Your task to perform on an android device: check battery use Image 0: 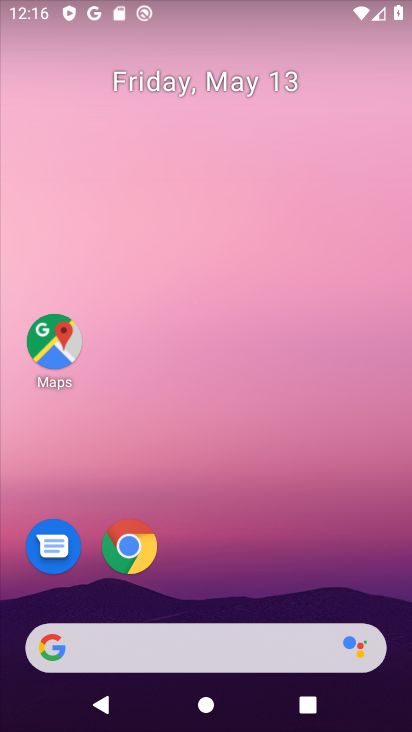
Step 0: drag from (364, 476) to (192, 49)
Your task to perform on an android device: check battery use Image 1: 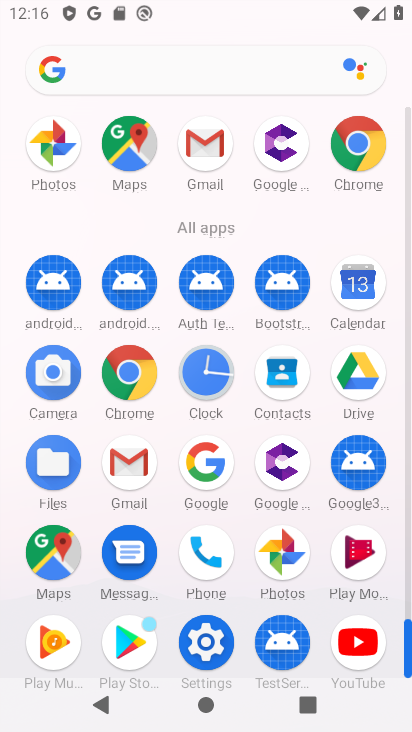
Step 1: click (206, 638)
Your task to perform on an android device: check battery use Image 2: 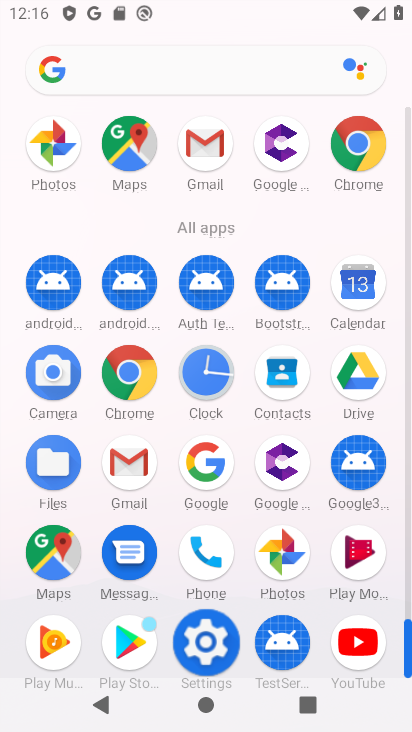
Step 2: click (204, 648)
Your task to perform on an android device: check battery use Image 3: 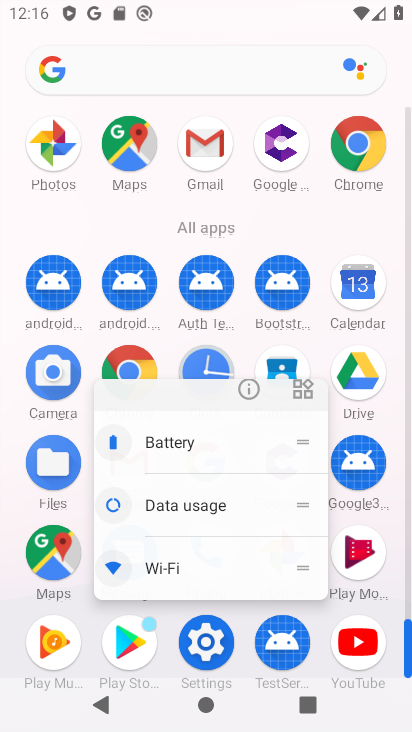
Step 3: click (200, 634)
Your task to perform on an android device: check battery use Image 4: 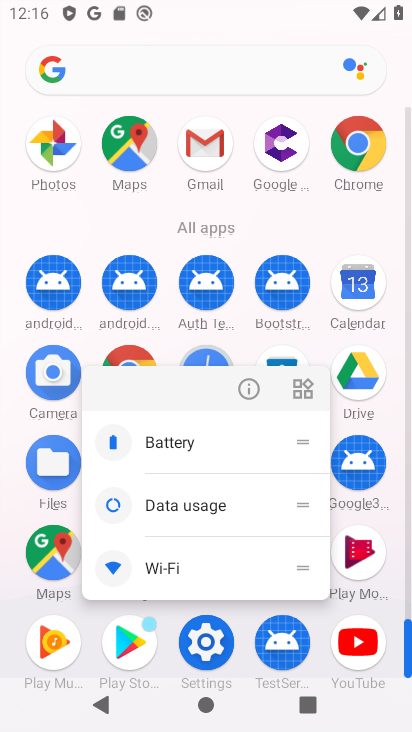
Step 4: click (203, 621)
Your task to perform on an android device: check battery use Image 5: 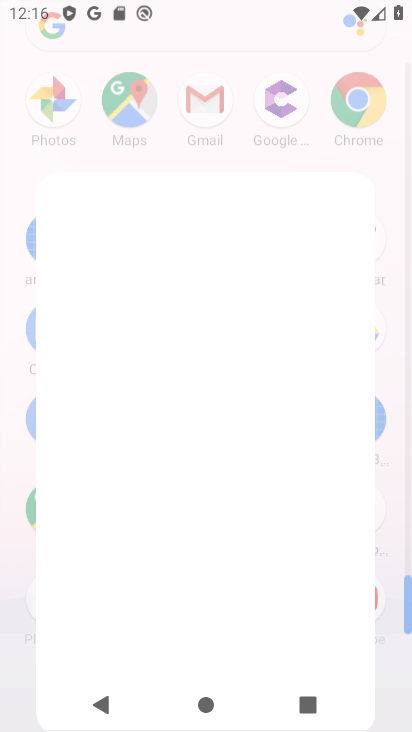
Step 5: click (204, 630)
Your task to perform on an android device: check battery use Image 6: 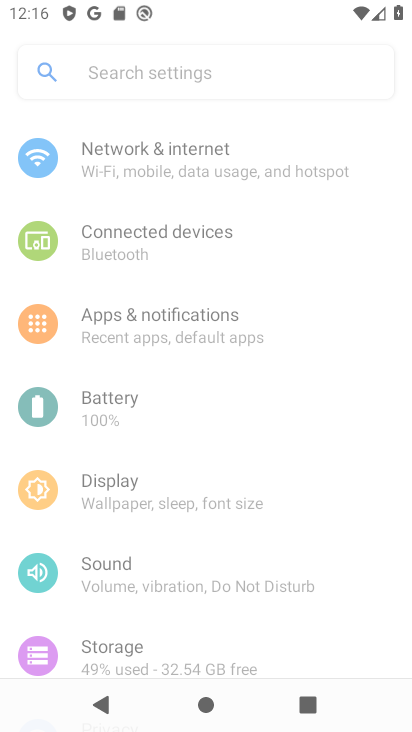
Step 6: click (204, 637)
Your task to perform on an android device: check battery use Image 7: 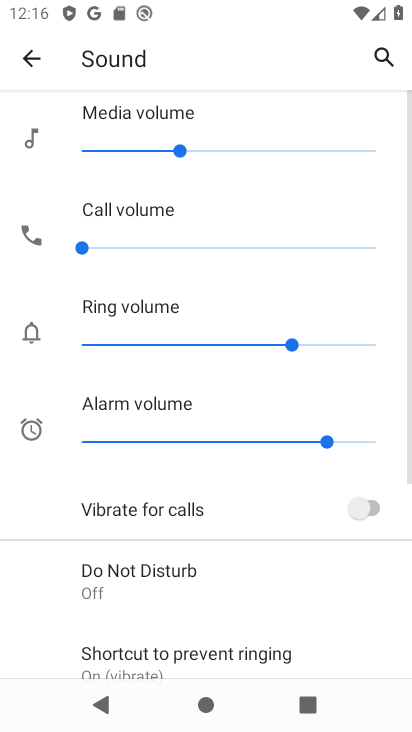
Step 7: click (42, 60)
Your task to perform on an android device: check battery use Image 8: 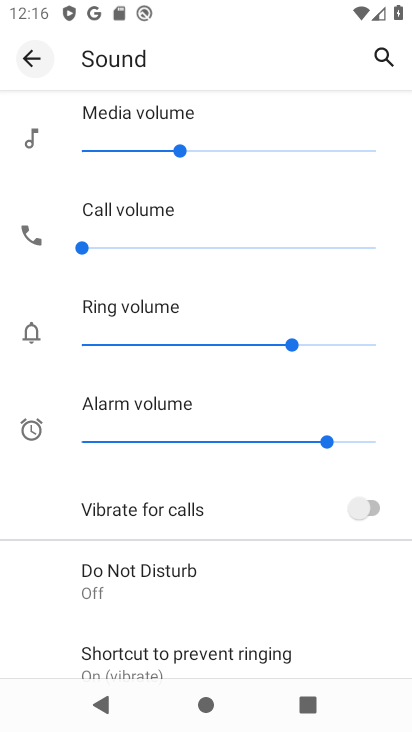
Step 8: click (36, 57)
Your task to perform on an android device: check battery use Image 9: 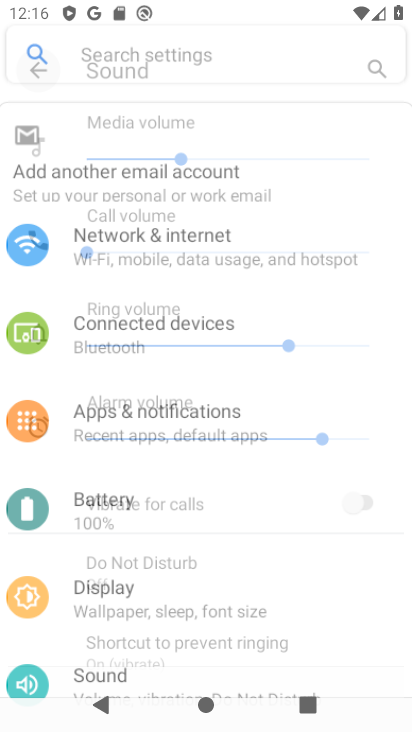
Step 9: click (35, 60)
Your task to perform on an android device: check battery use Image 10: 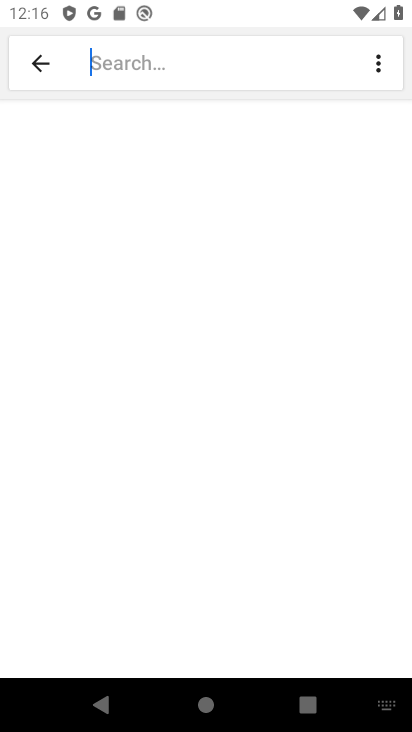
Step 10: click (43, 52)
Your task to perform on an android device: check battery use Image 11: 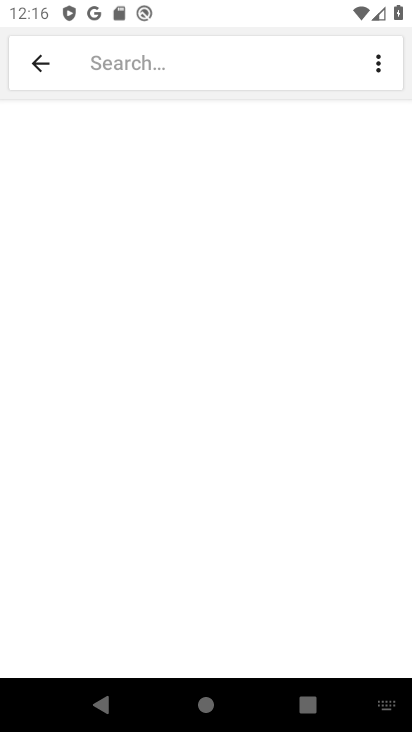
Step 11: click (43, 56)
Your task to perform on an android device: check battery use Image 12: 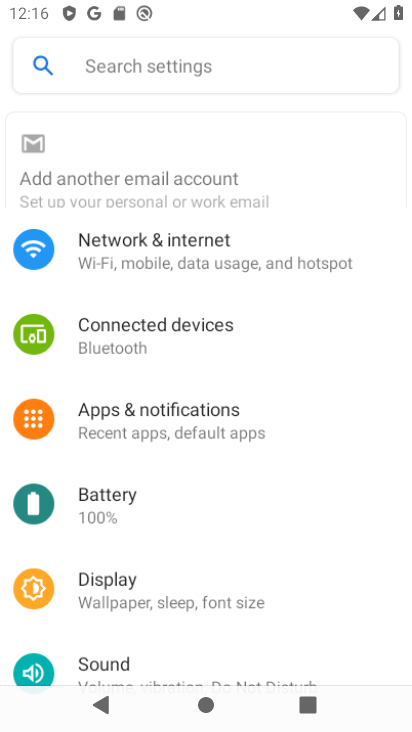
Step 12: click (43, 66)
Your task to perform on an android device: check battery use Image 13: 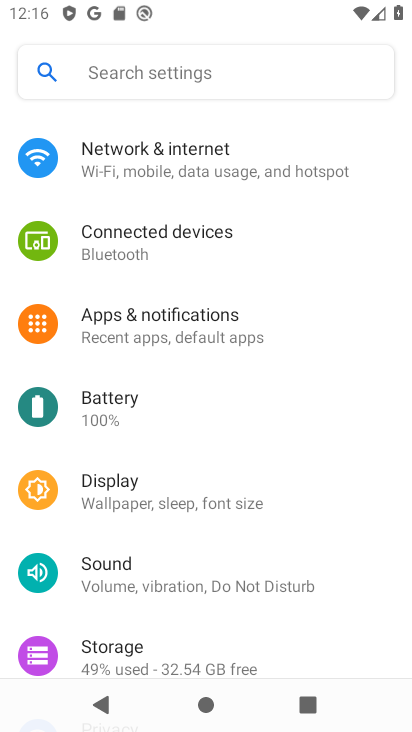
Step 13: click (43, 68)
Your task to perform on an android device: check battery use Image 14: 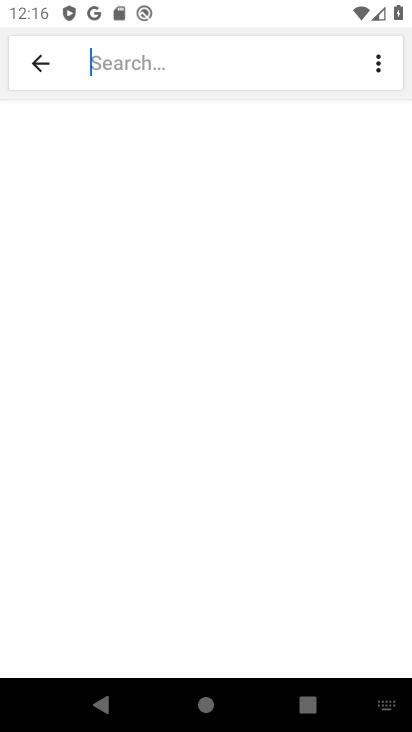
Step 14: click (26, 58)
Your task to perform on an android device: check battery use Image 15: 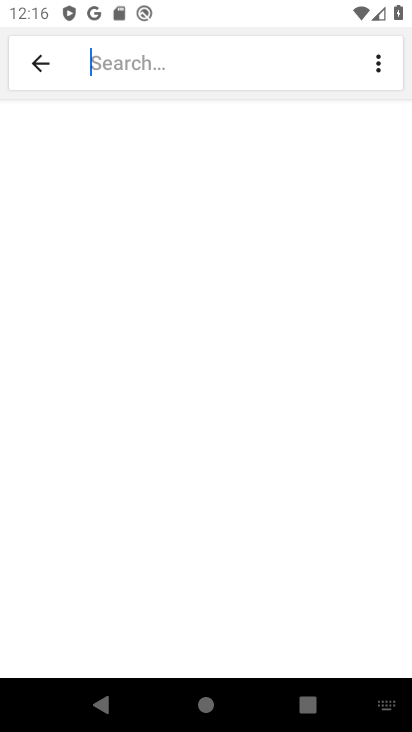
Step 15: click (38, 49)
Your task to perform on an android device: check battery use Image 16: 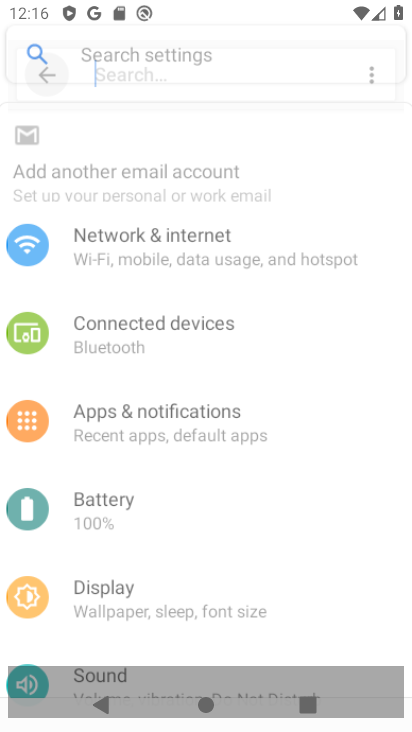
Step 16: click (60, 62)
Your task to perform on an android device: check battery use Image 17: 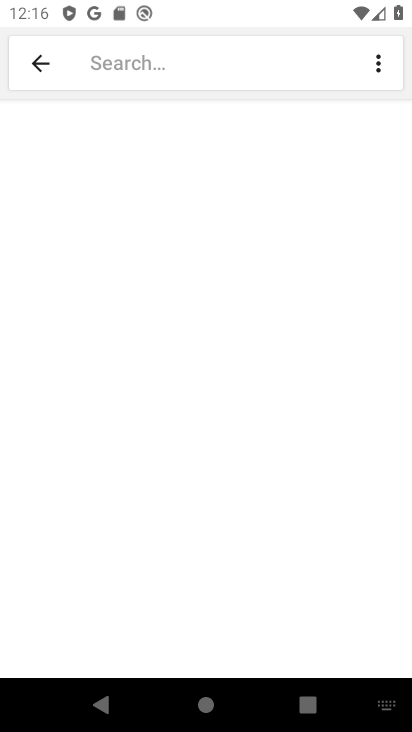
Step 17: click (40, 67)
Your task to perform on an android device: check battery use Image 18: 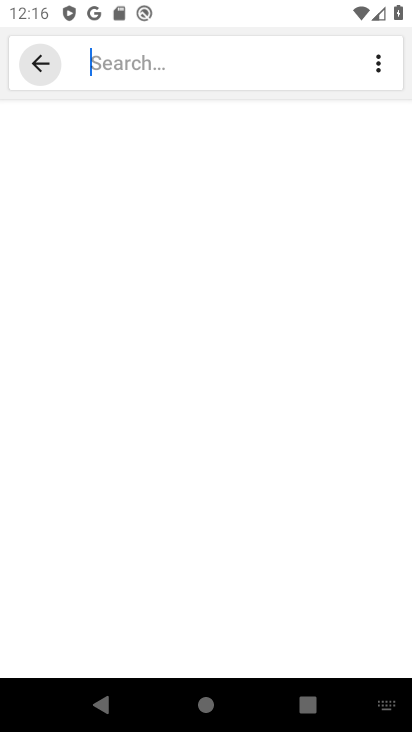
Step 18: click (43, 64)
Your task to perform on an android device: check battery use Image 19: 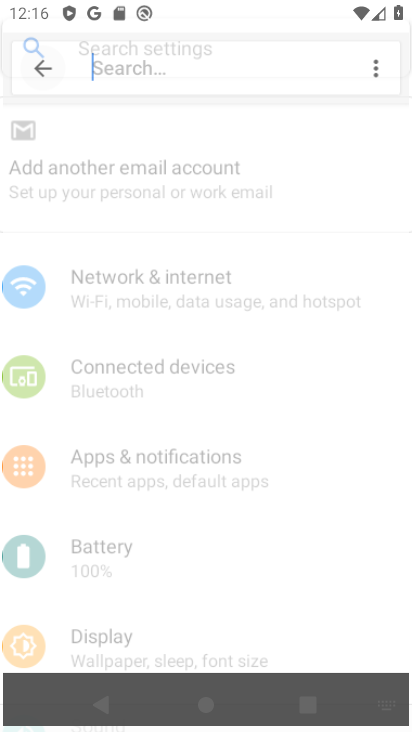
Step 19: click (42, 72)
Your task to perform on an android device: check battery use Image 20: 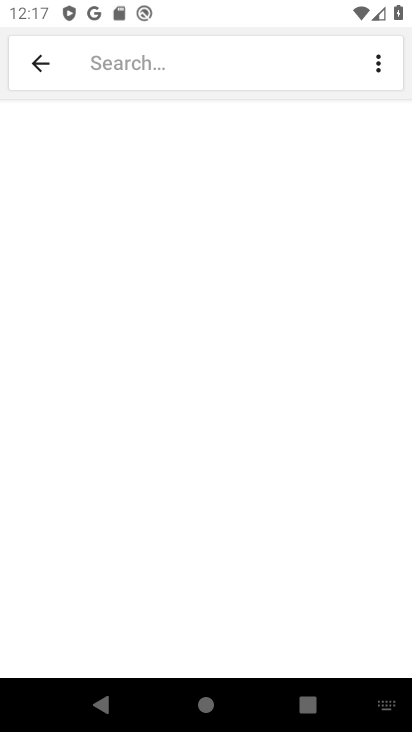
Step 20: click (33, 63)
Your task to perform on an android device: check battery use Image 21: 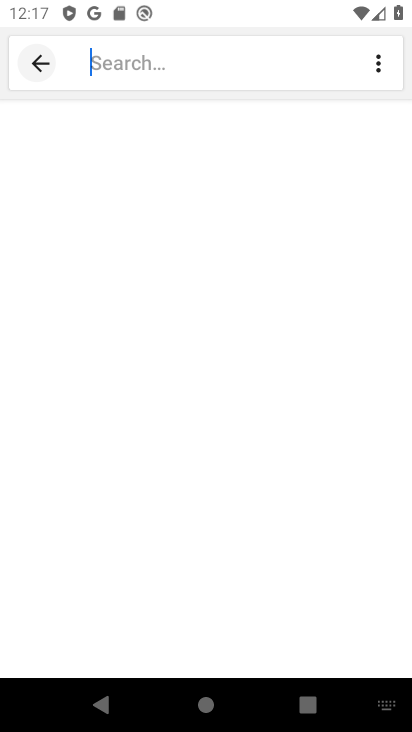
Step 21: click (33, 63)
Your task to perform on an android device: check battery use Image 22: 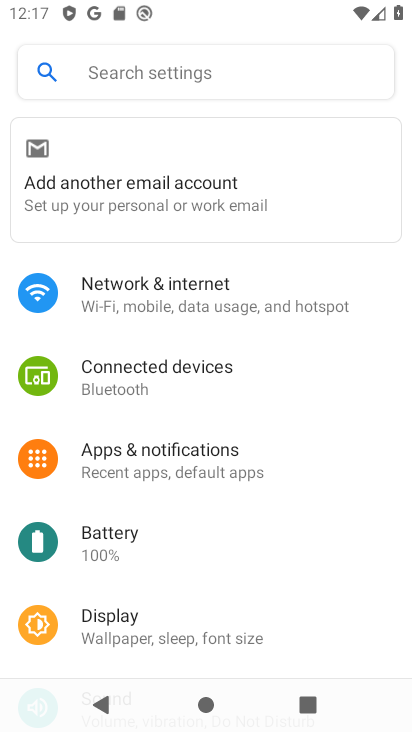
Step 22: drag from (148, 371) to (95, 229)
Your task to perform on an android device: check battery use Image 23: 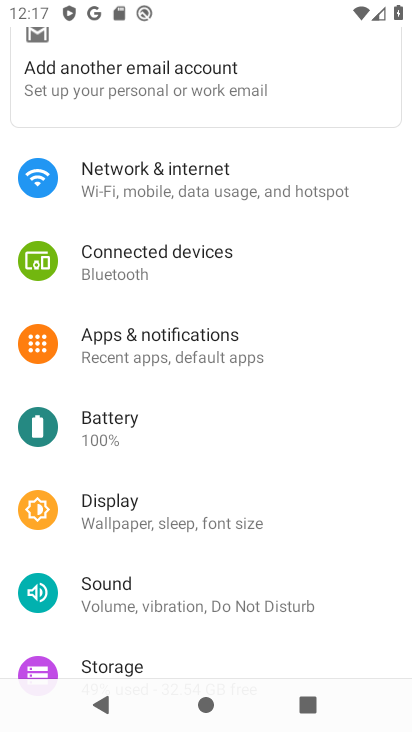
Step 23: drag from (176, 382) to (128, 179)
Your task to perform on an android device: check battery use Image 24: 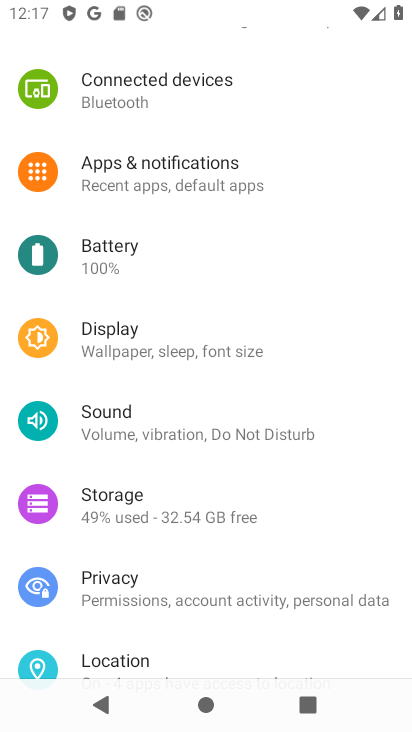
Step 24: drag from (84, 475) to (81, 232)
Your task to perform on an android device: check battery use Image 25: 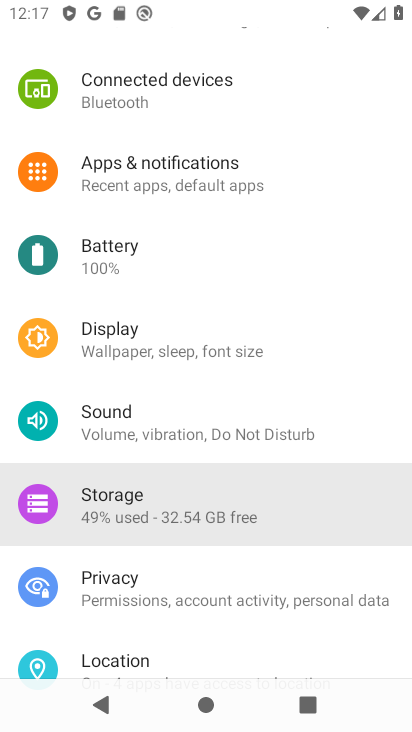
Step 25: drag from (169, 403) to (160, 92)
Your task to perform on an android device: check battery use Image 26: 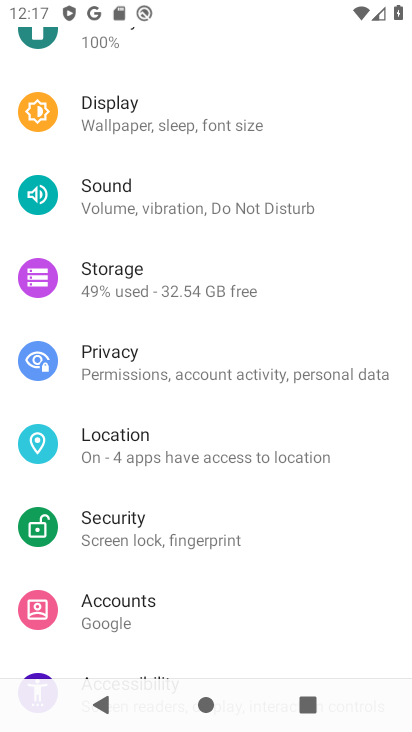
Step 26: drag from (101, 210) to (201, 510)
Your task to perform on an android device: check battery use Image 27: 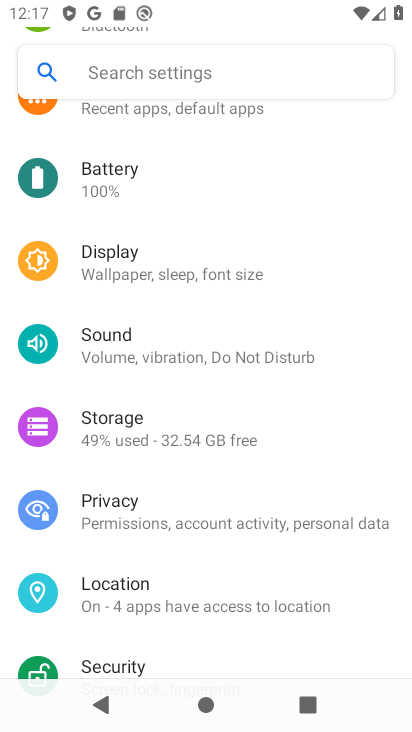
Step 27: drag from (151, 233) to (221, 556)
Your task to perform on an android device: check battery use Image 28: 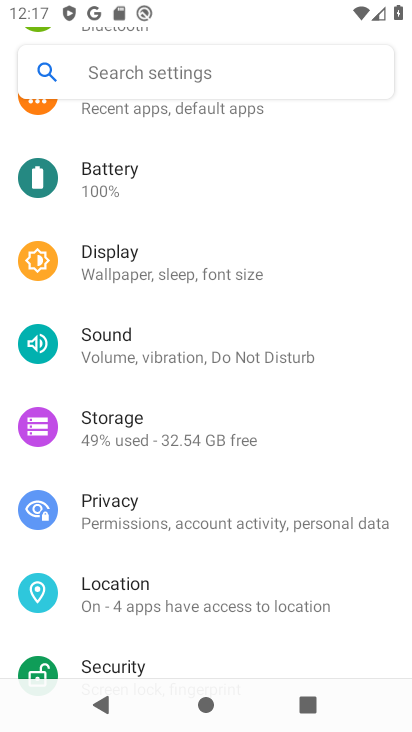
Step 28: drag from (162, 184) to (214, 476)
Your task to perform on an android device: check battery use Image 29: 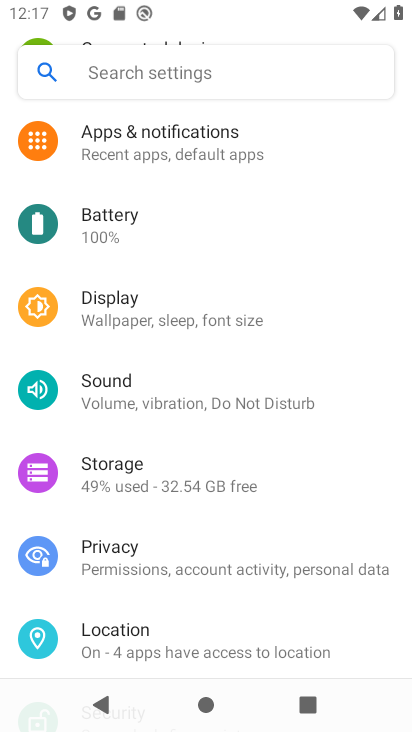
Step 29: drag from (151, 217) to (229, 477)
Your task to perform on an android device: check battery use Image 30: 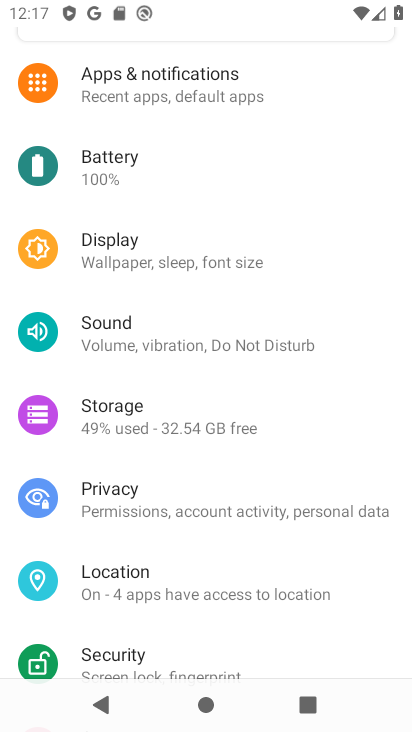
Step 30: drag from (188, 194) to (253, 518)
Your task to perform on an android device: check battery use Image 31: 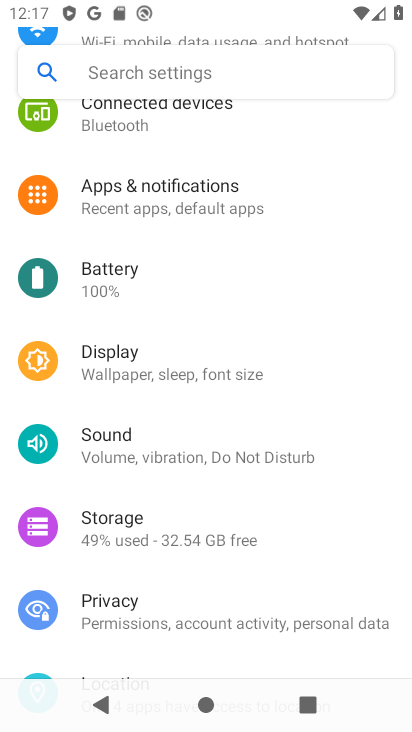
Step 31: drag from (234, 394) to (258, 497)
Your task to perform on an android device: check battery use Image 32: 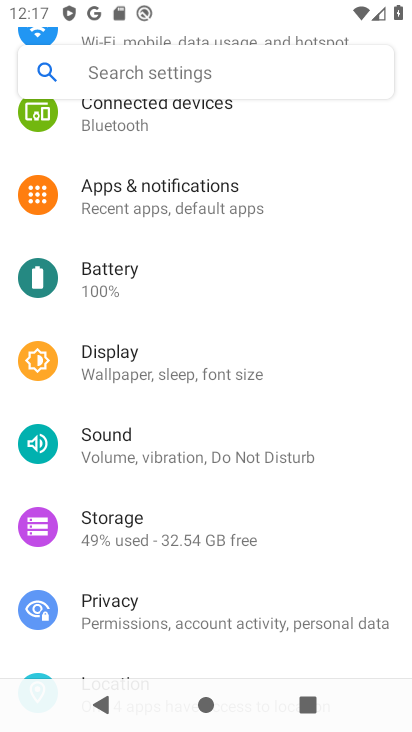
Step 32: drag from (157, 148) to (221, 462)
Your task to perform on an android device: check battery use Image 33: 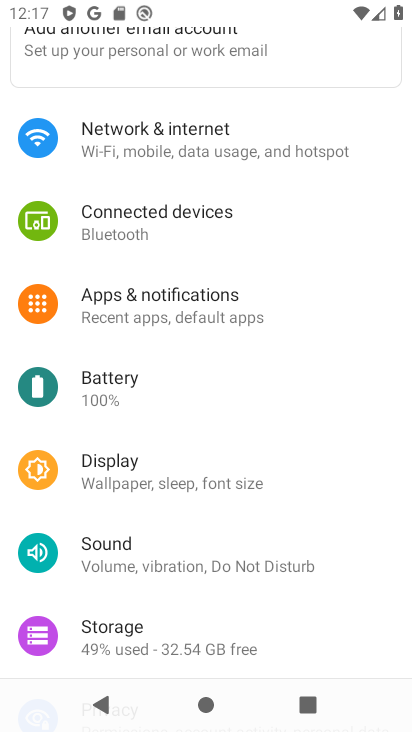
Step 33: drag from (114, 121) to (219, 479)
Your task to perform on an android device: check battery use Image 34: 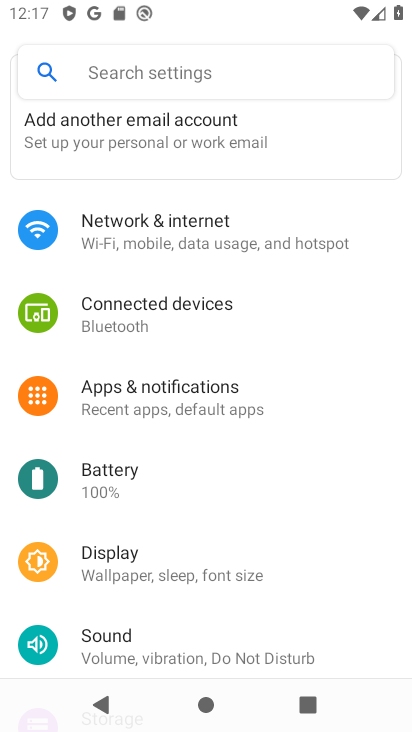
Step 34: drag from (194, 169) to (211, 526)
Your task to perform on an android device: check battery use Image 35: 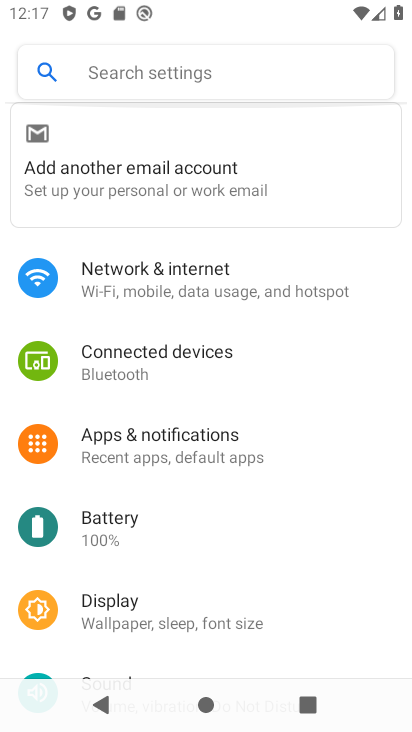
Step 35: drag from (214, 338) to (267, 532)
Your task to perform on an android device: check battery use Image 36: 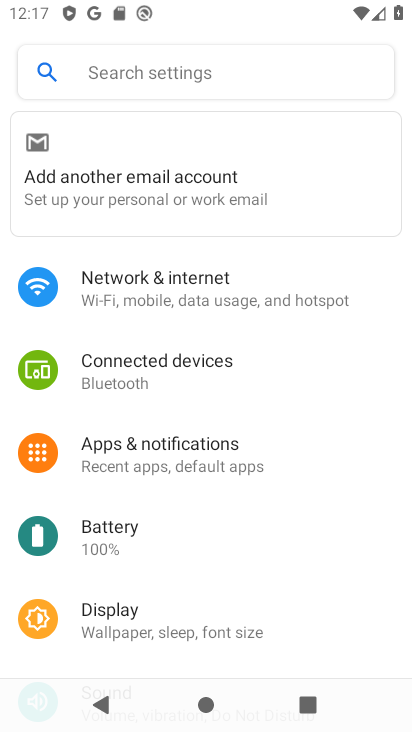
Step 36: click (118, 564)
Your task to perform on an android device: check battery use Image 37: 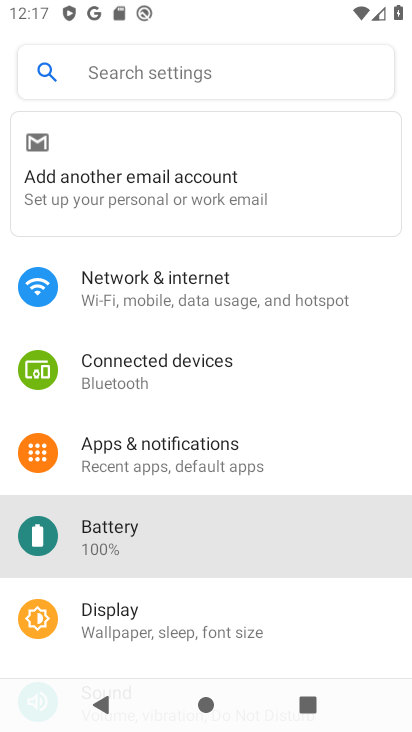
Step 37: click (107, 545)
Your task to perform on an android device: check battery use Image 38: 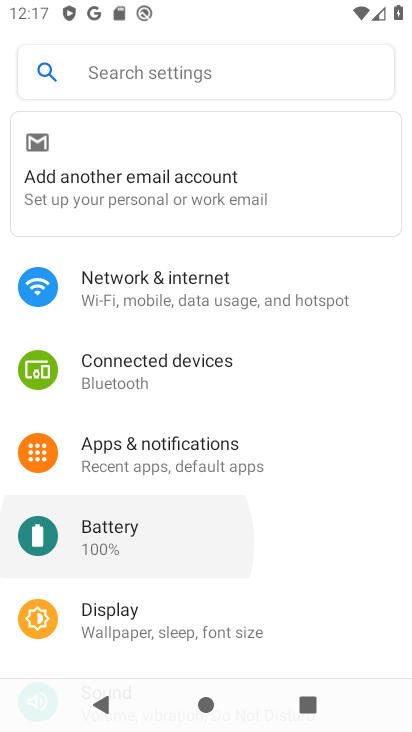
Step 38: click (99, 534)
Your task to perform on an android device: check battery use Image 39: 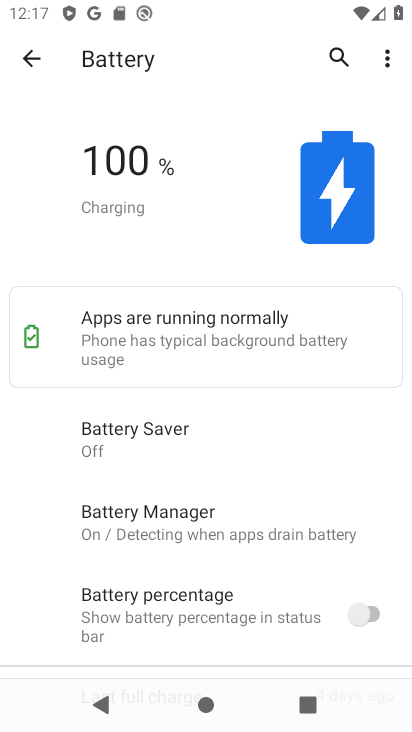
Step 39: task complete